Your task to perform on an android device: Go to Maps Image 0: 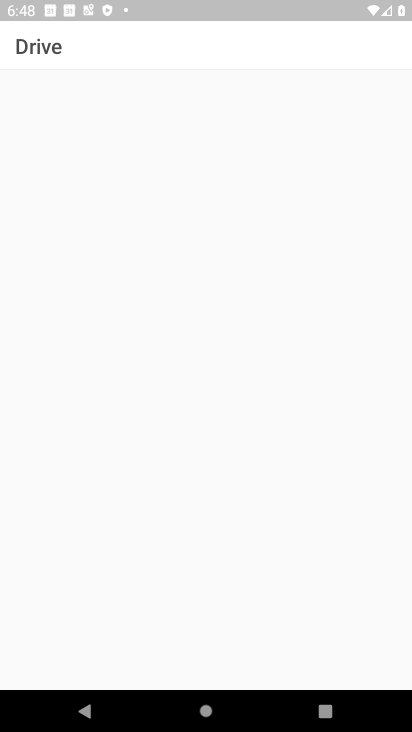
Step 0: press home button
Your task to perform on an android device: Go to Maps Image 1: 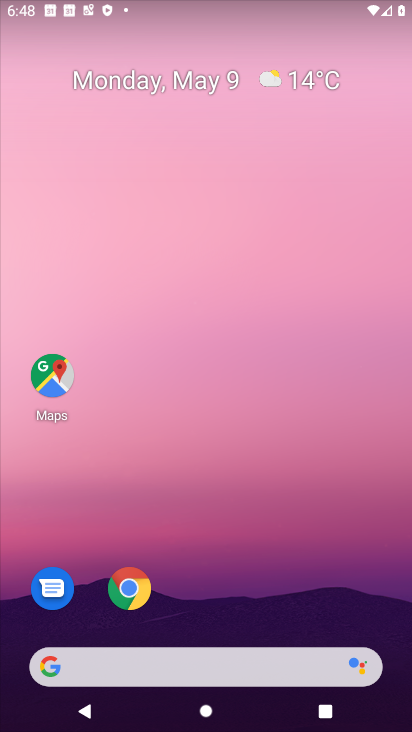
Step 1: drag from (352, 601) to (308, 36)
Your task to perform on an android device: Go to Maps Image 2: 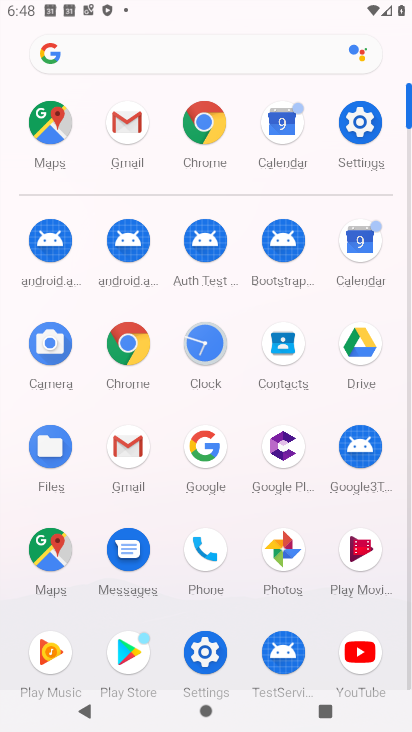
Step 2: click (58, 541)
Your task to perform on an android device: Go to Maps Image 3: 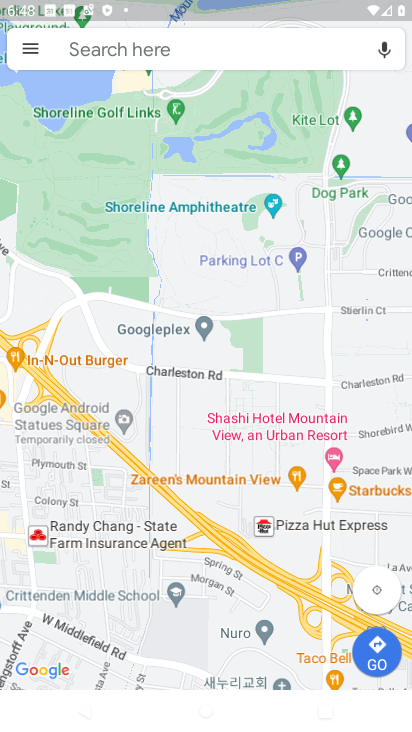
Step 3: task complete